Your task to perform on an android device: Search for razer thresher on newegg.com, select the first entry, add it to the cart, then select checkout. Image 0: 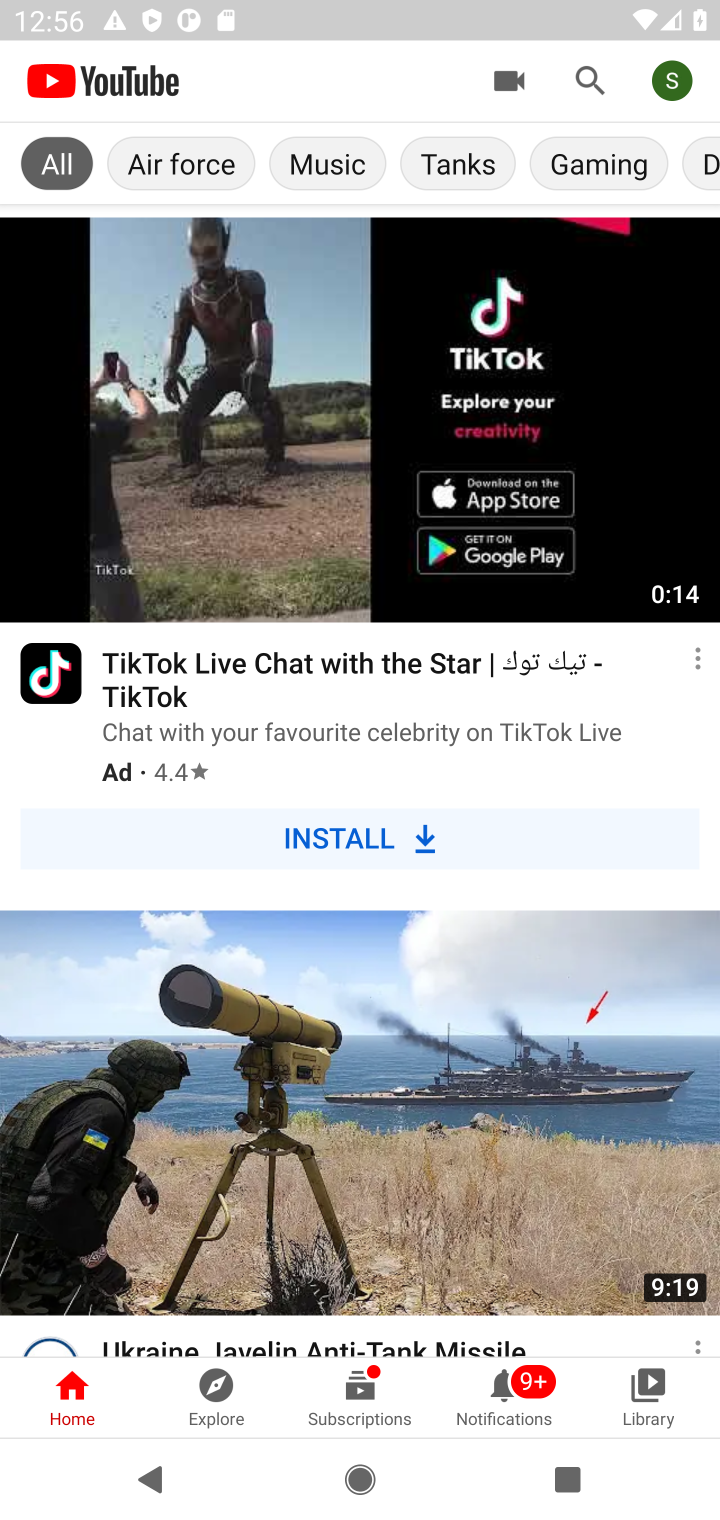
Step 0: press home button
Your task to perform on an android device: Search for razer thresher on newegg.com, select the first entry, add it to the cart, then select checkout. Image 1: 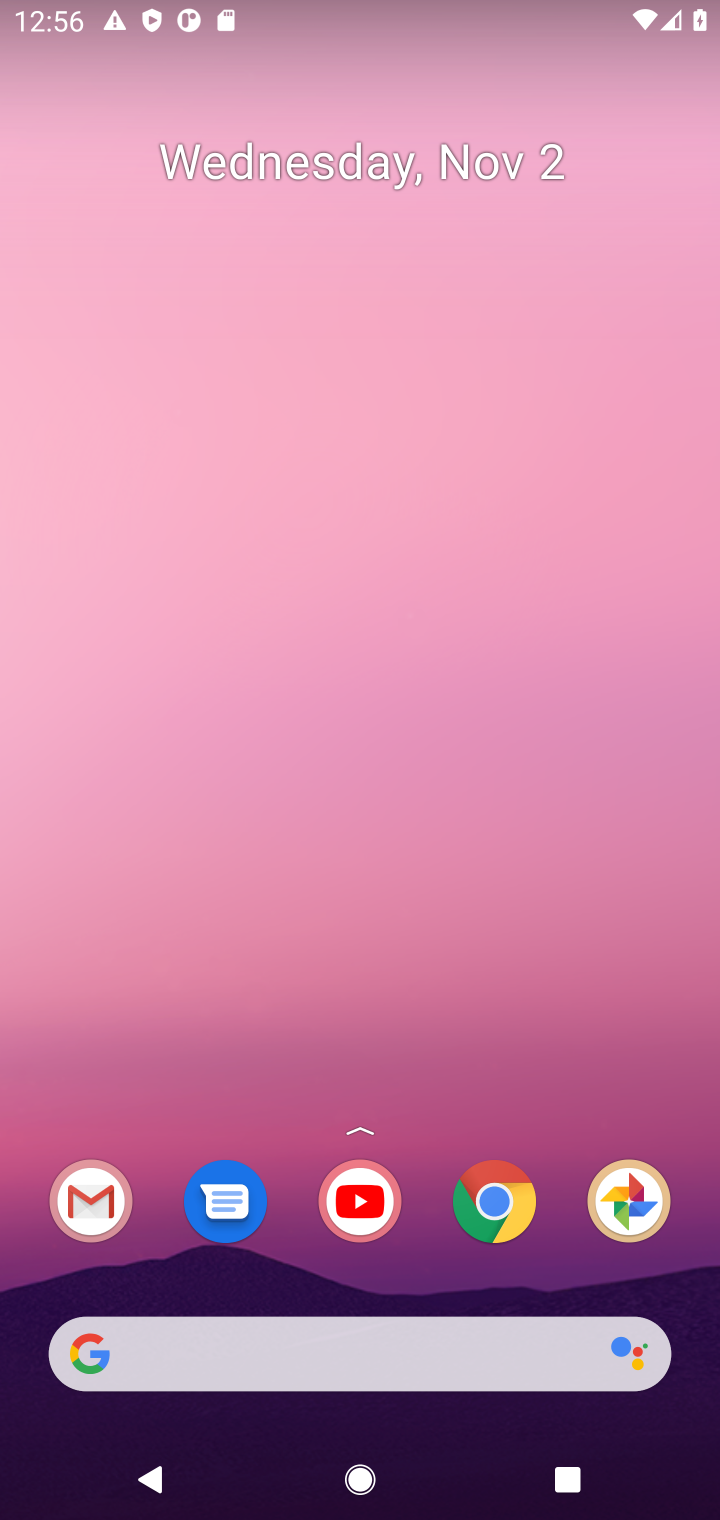
Step 1: drag from (300, 1159) to (442, 243)
Your task to perform on an android device: Search for razer thresher on newegg.com, select the first entry, add it to the cart, then select checkout. Image 2: 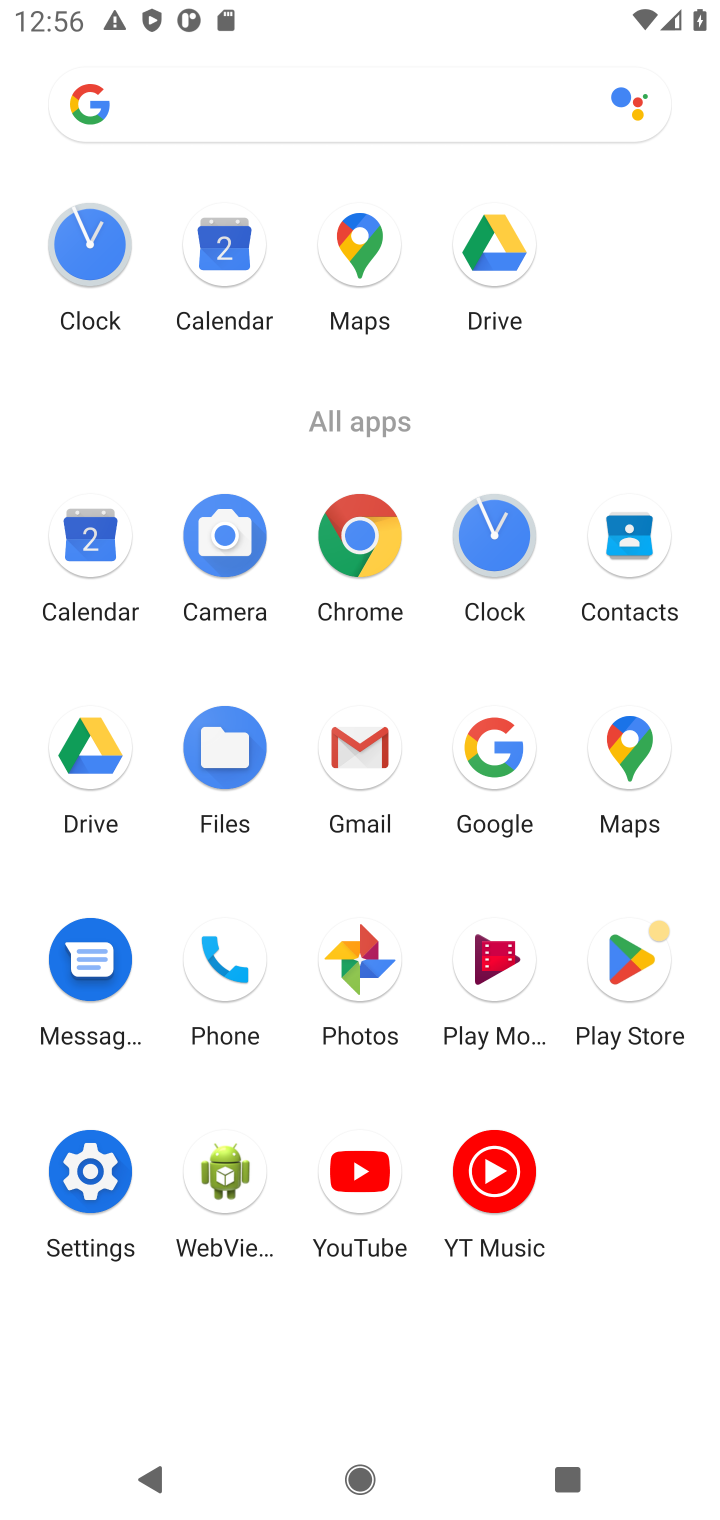
Step 2: click (514, 761)
Your task to perform on an android device: Search for razer thresher on newegg.com, select the first entry, add it to the cart, then select checkout. Image 3: 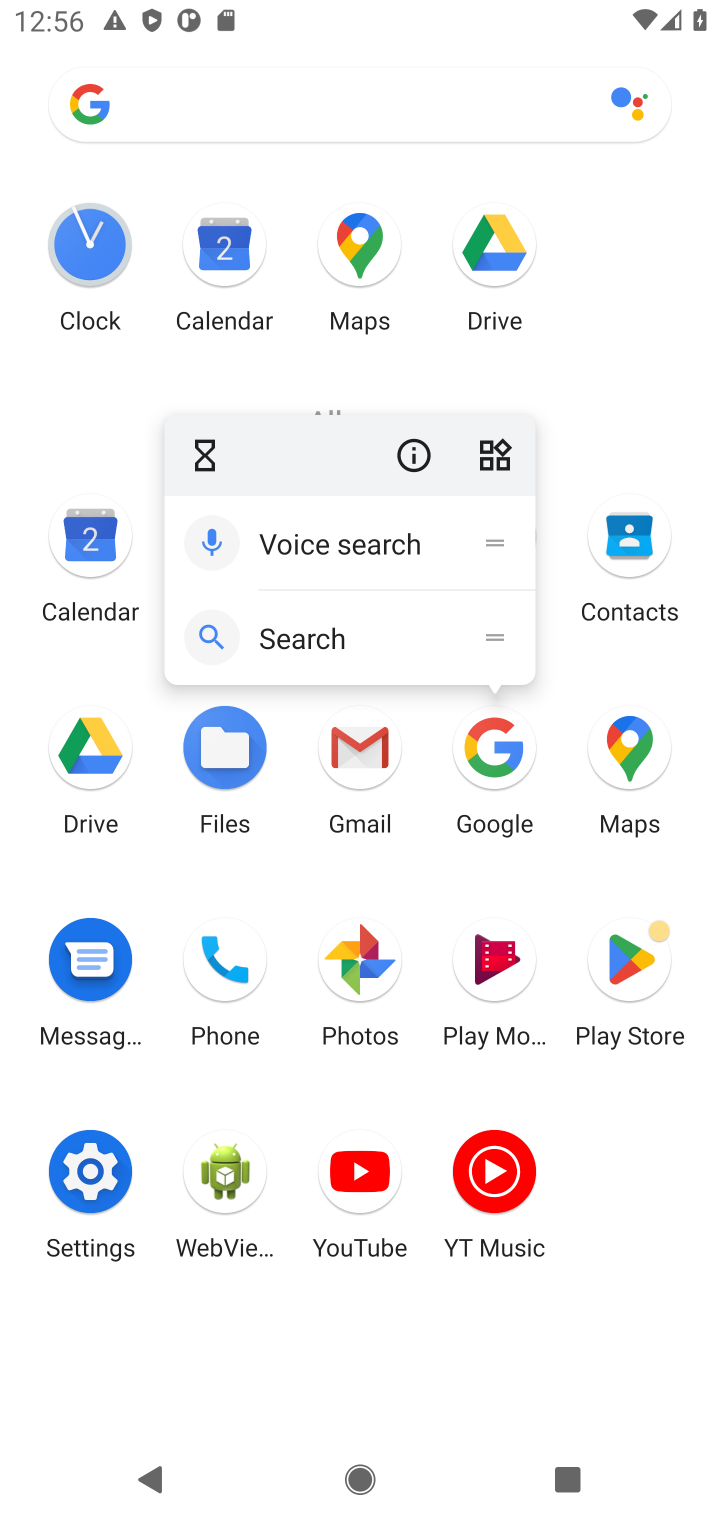
Step 3: click (503, 753)
Your task to perform on an android device: Search for razer thresher on newegg.com, select the first entry, add it to the cart, then select checkout. Image 4: 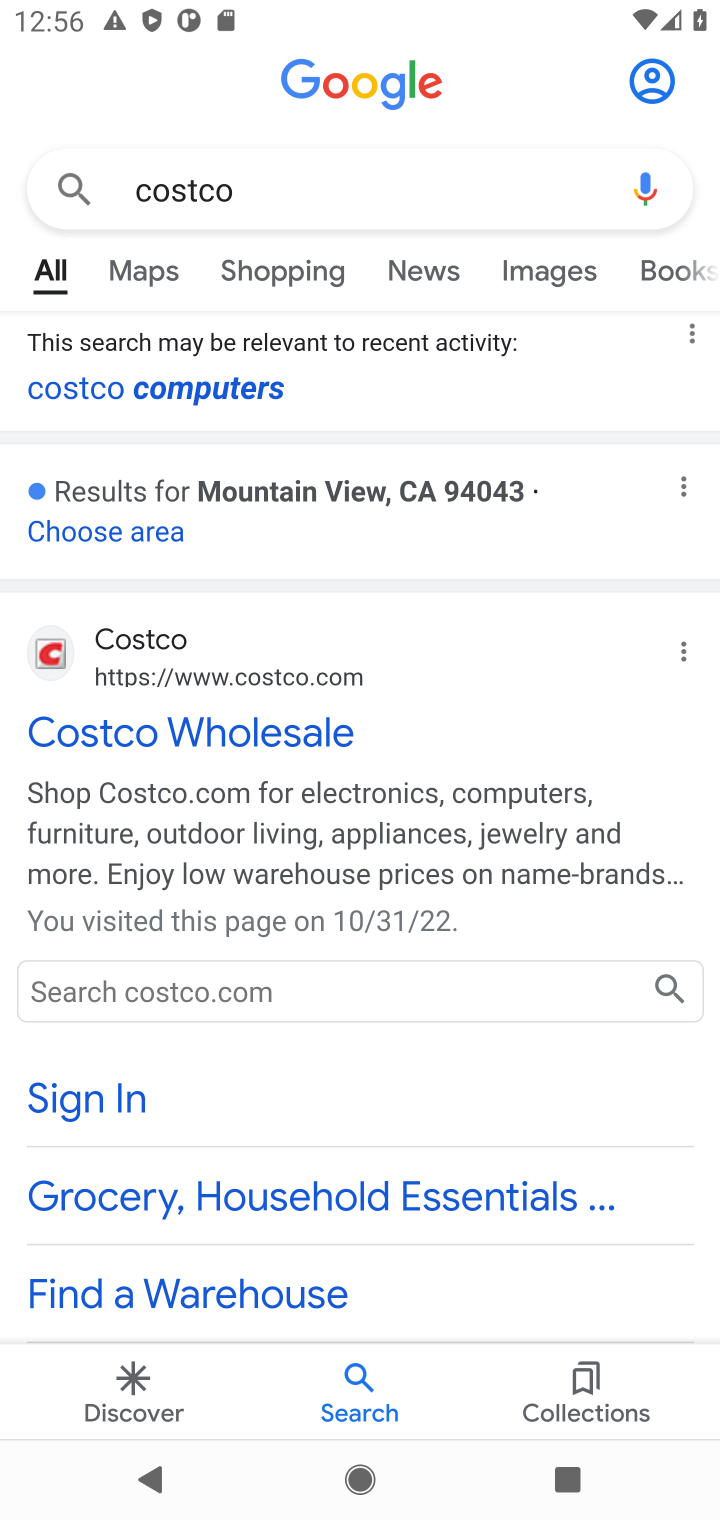
Step 4: click (267, 177)
Your task to perform on an android device: Search for razer thresher on newegg.com, select the first entry, add it to the cart, then select checkout. Image 5: 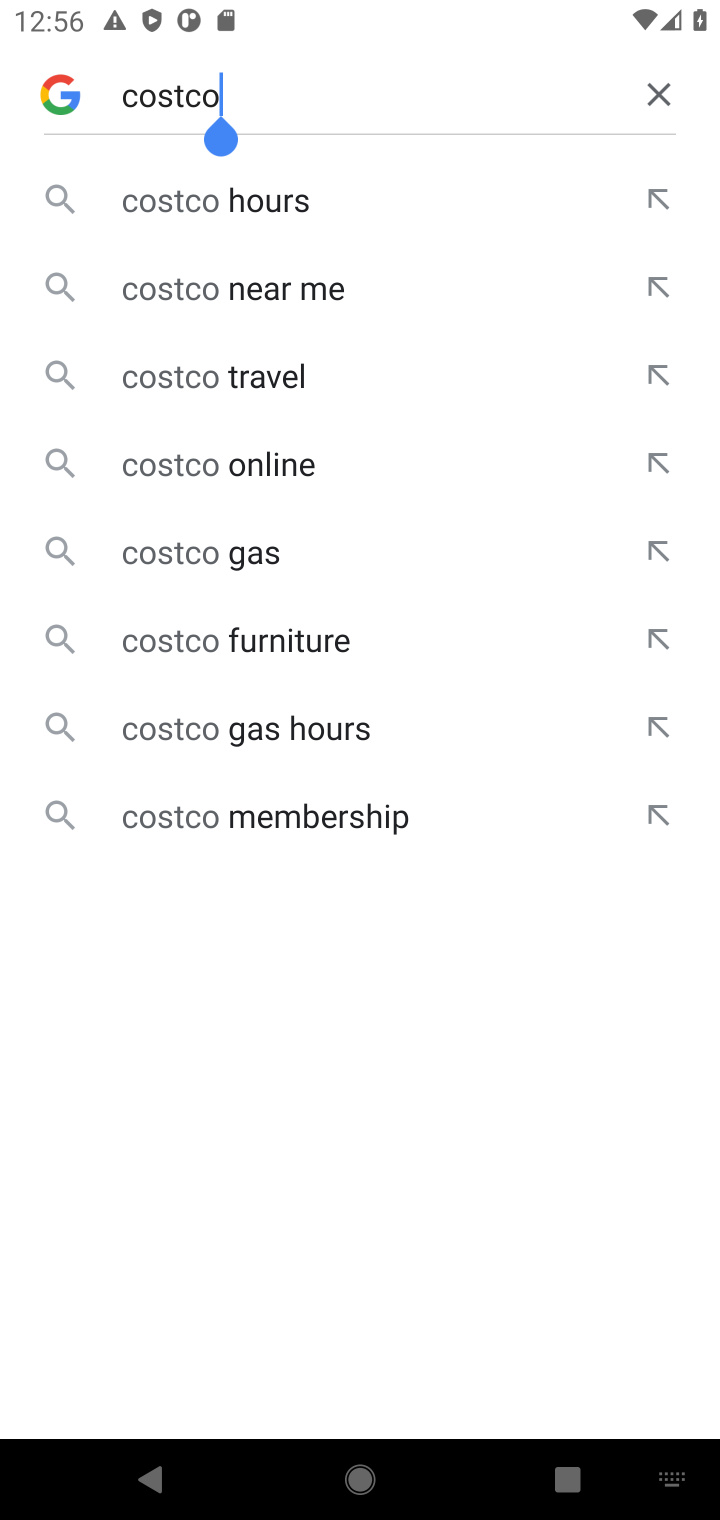
Step 5: click (661, 99)
Your task to perform on an android device: Search for razer thresher on newegg.com, select the first entry, add it to the cart, then select checkout. Image 6: 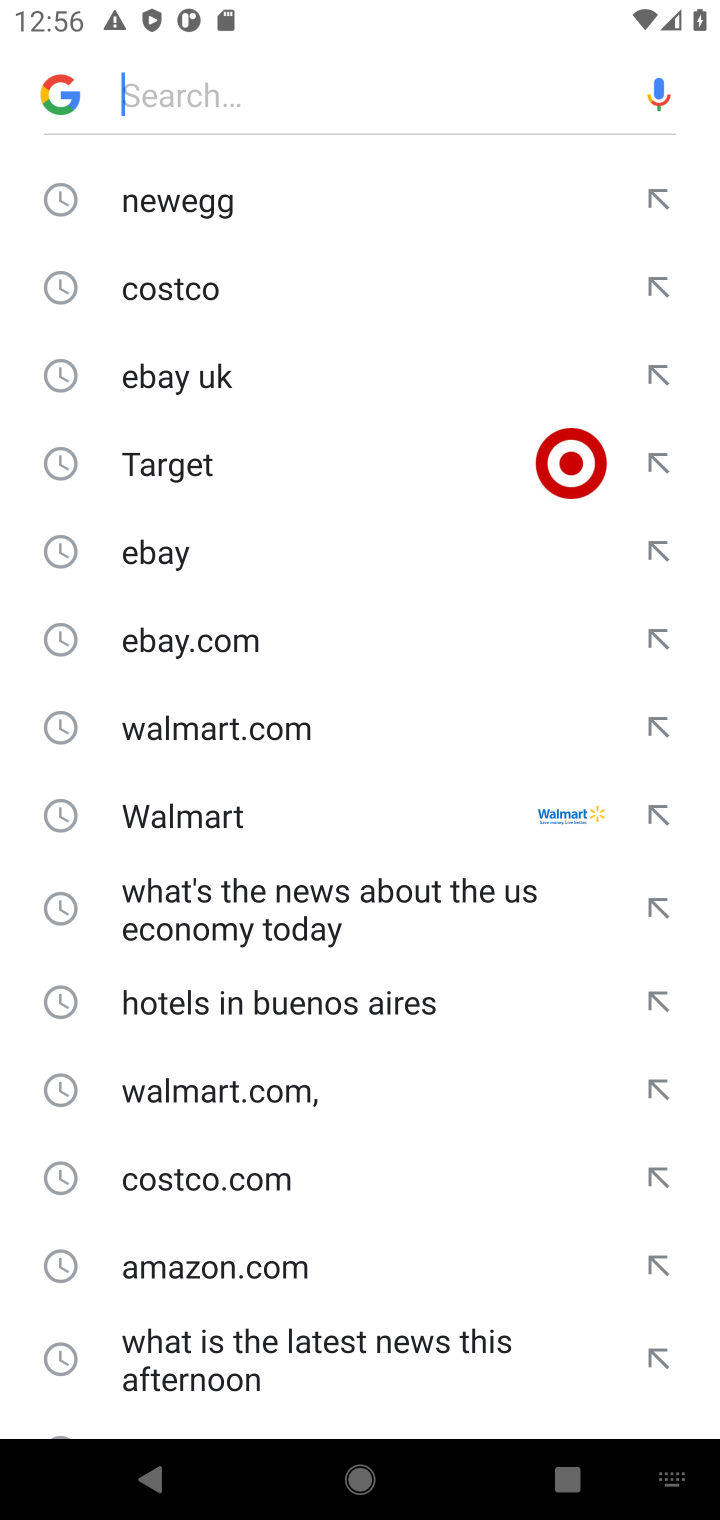
Step 6: click (173, 201)
Your task to perform on an android device: Search for razer thresher on newegg.com, select the first entry, add it to the cart, then select checkout. Image 7: 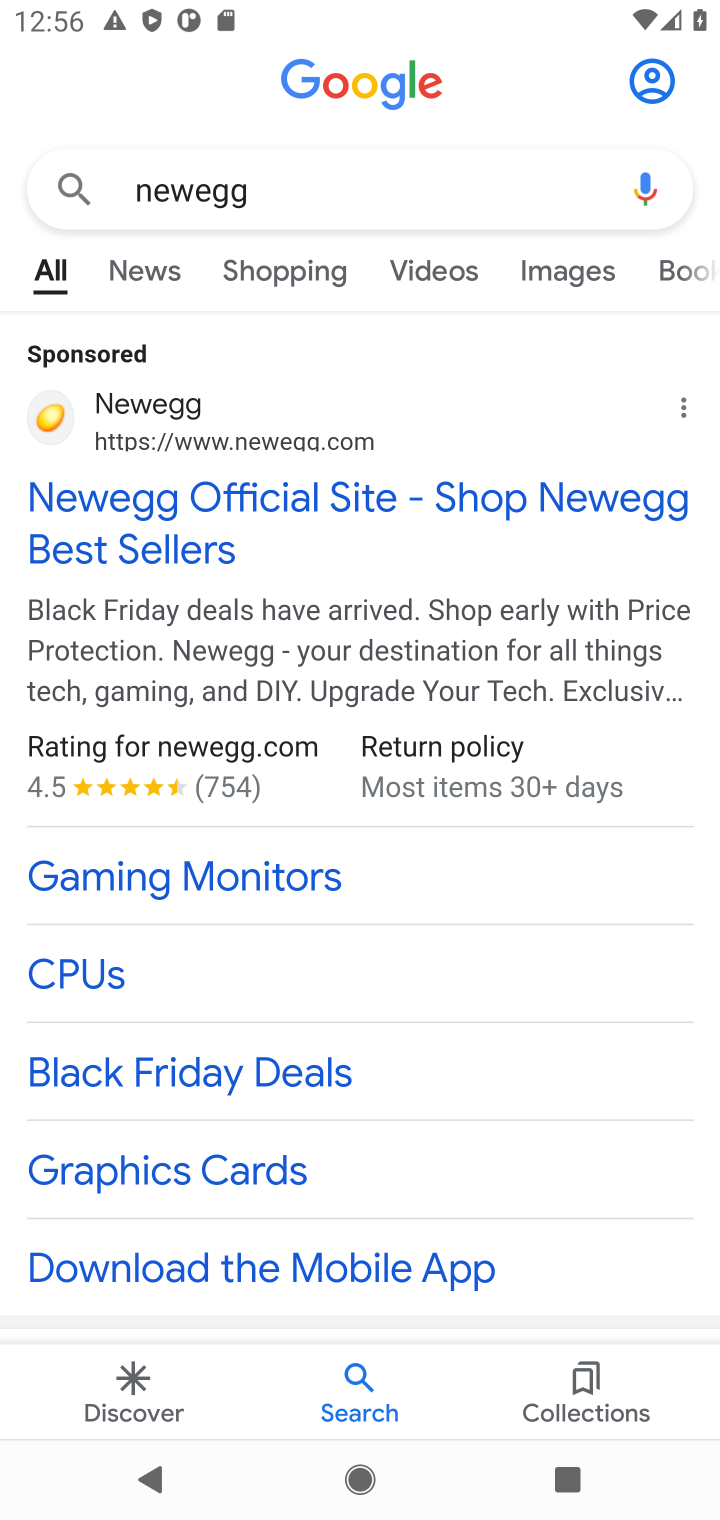
Step 7: click (254, 510)
Your task to perform on an android device: Search for razer thresher on newegg.com, select the first entry, add it to the cart, then select checkout. Image 8: 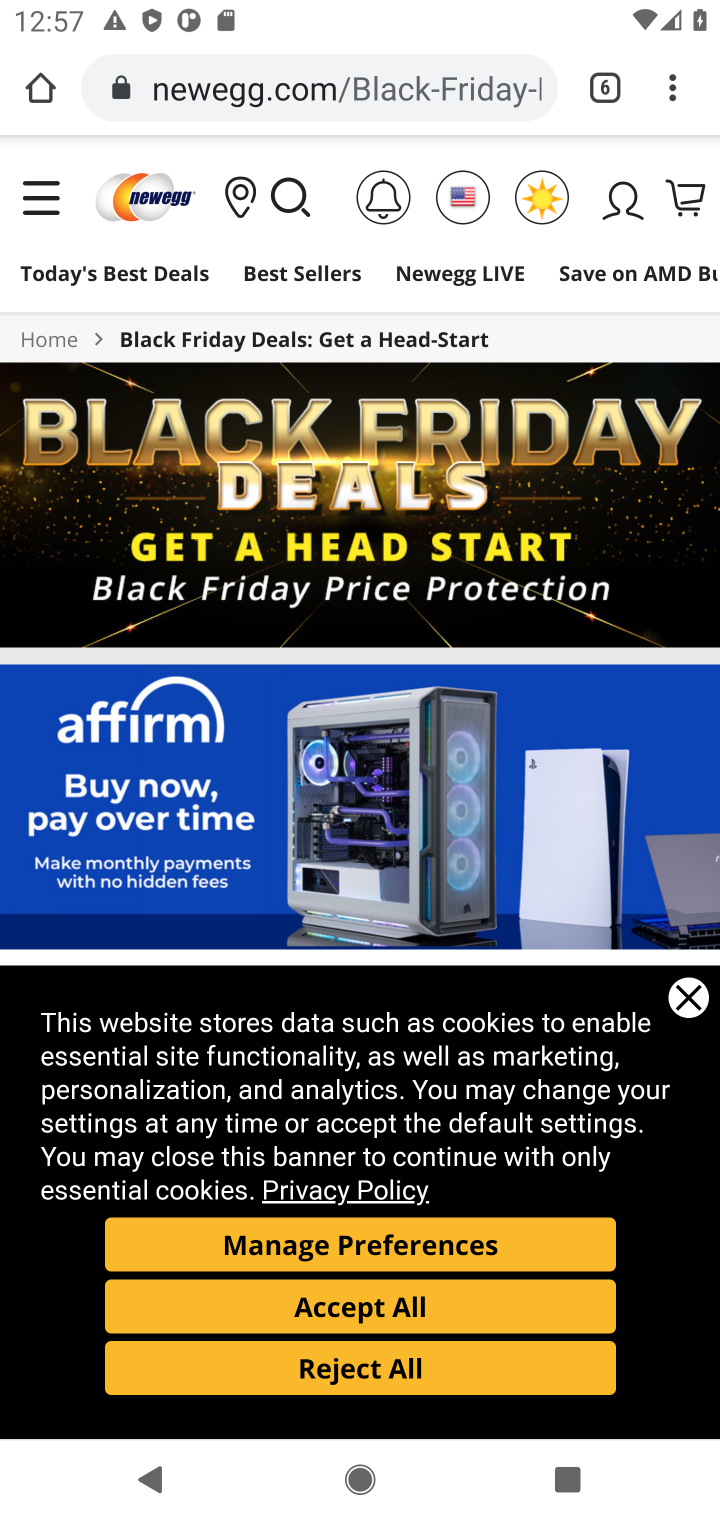
Step 8: click (289, 190)
Your task to perform on an android device: Search for razer thresher on newegg.com, select the first entry, add it to the cart, then select checkout. Image 9: 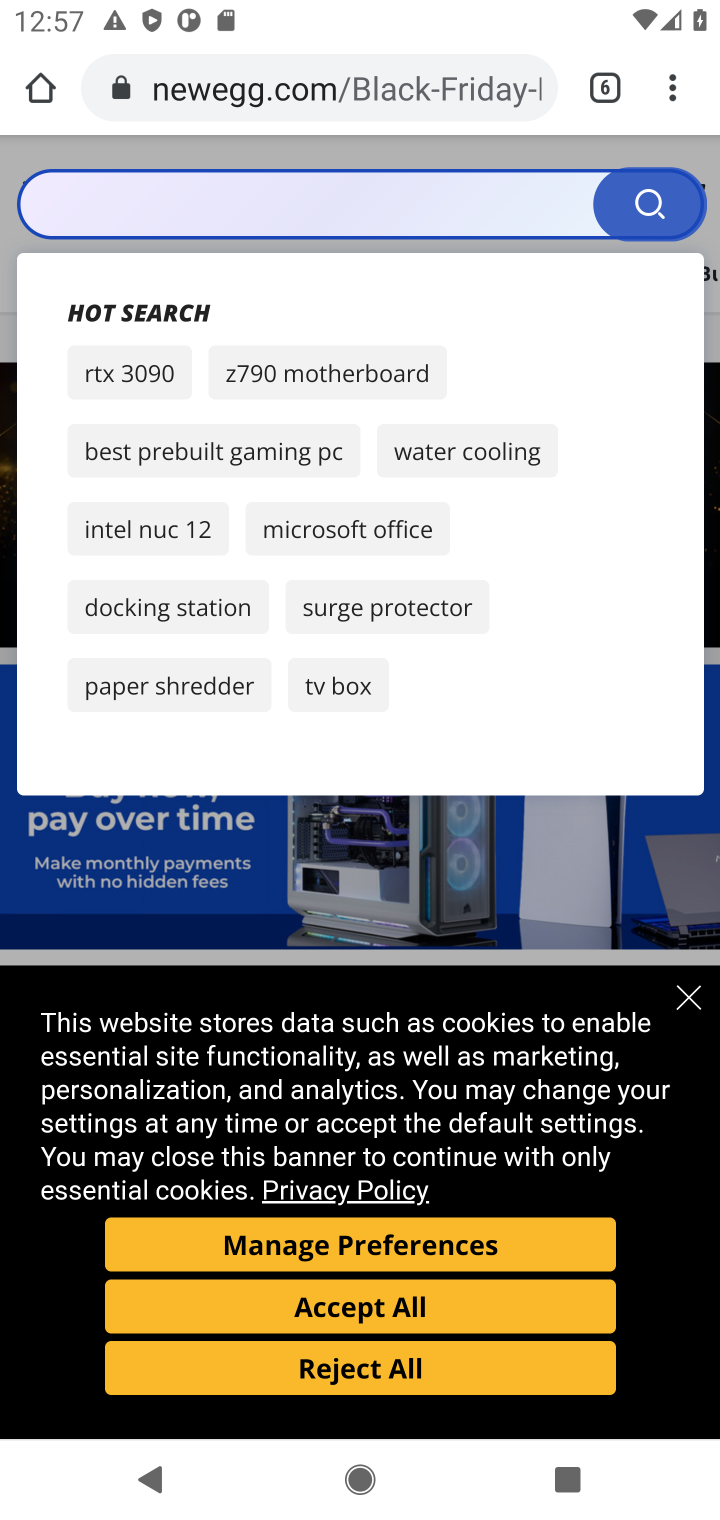
Step 9: click (68, 211)
Your task to perform on an android device: Search for razer thresher on newegg.com, select the first entry, add it to the cart, then select checkout. Image 10: 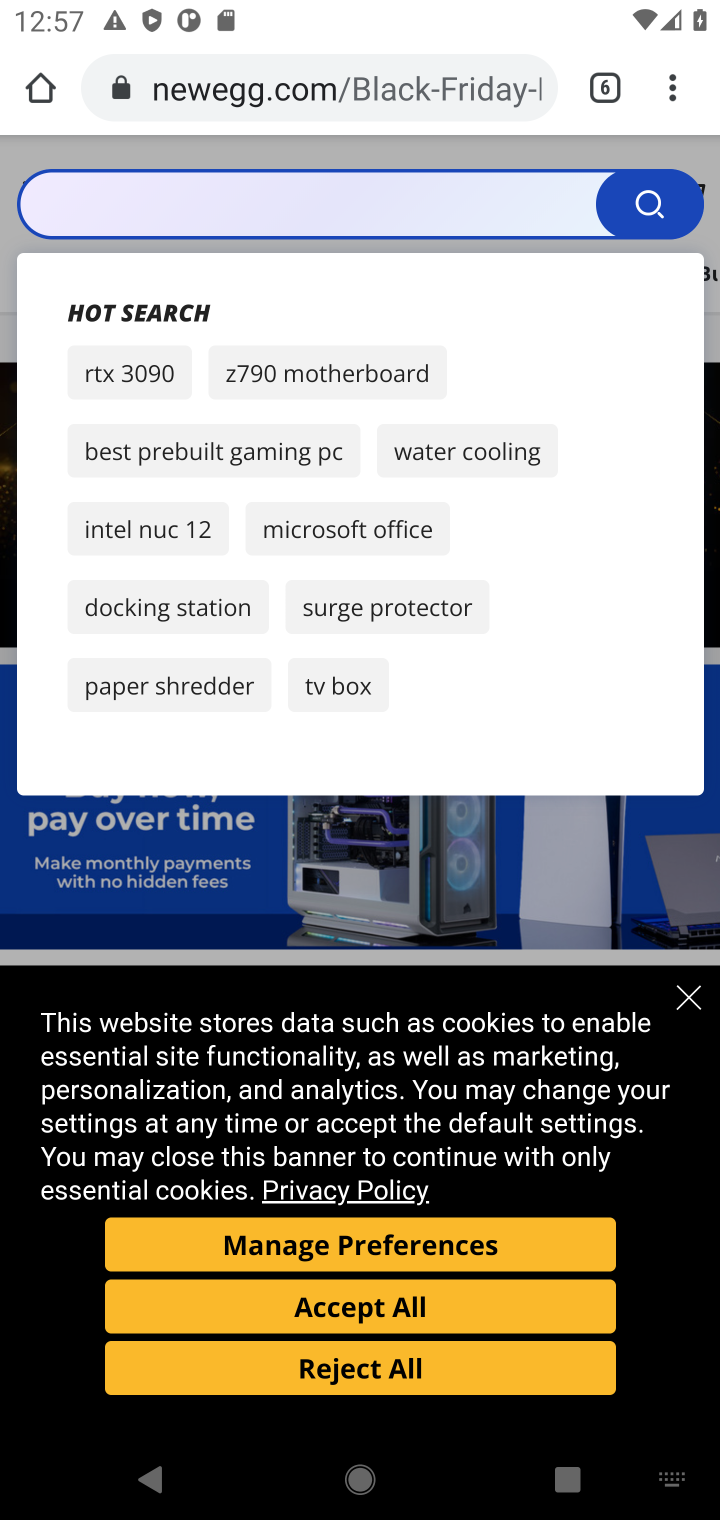
Step 10: type "razer thresher"
Your task to perform on an android device: Search for razer thresher on newegg.com, select the first entry, add it to the cart, then select checkout. Image 11: 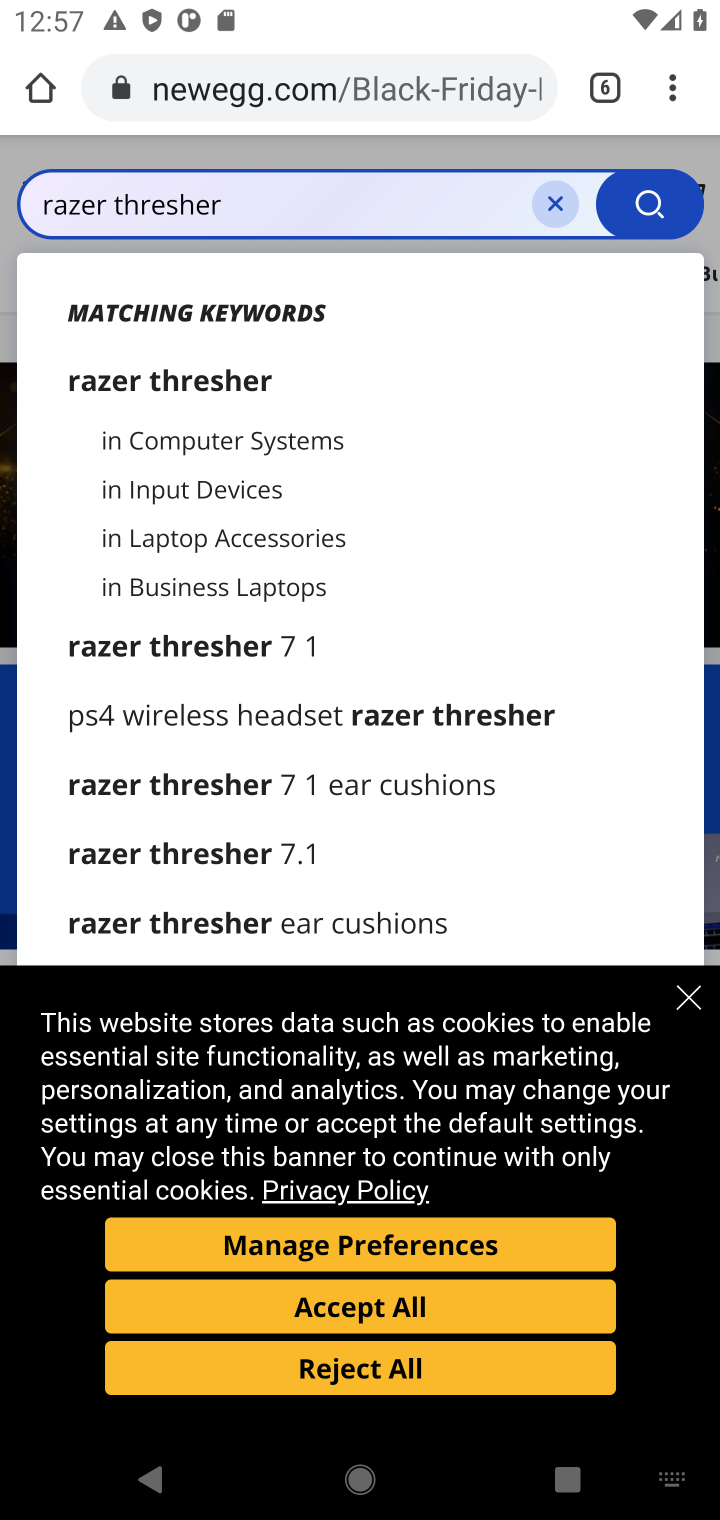
Step 11: click (139, 382)
Your task to perform on an android device: Search for razer thresher on newegg.com, select the first entry, add it to the cart, then select checkout. Image 12: 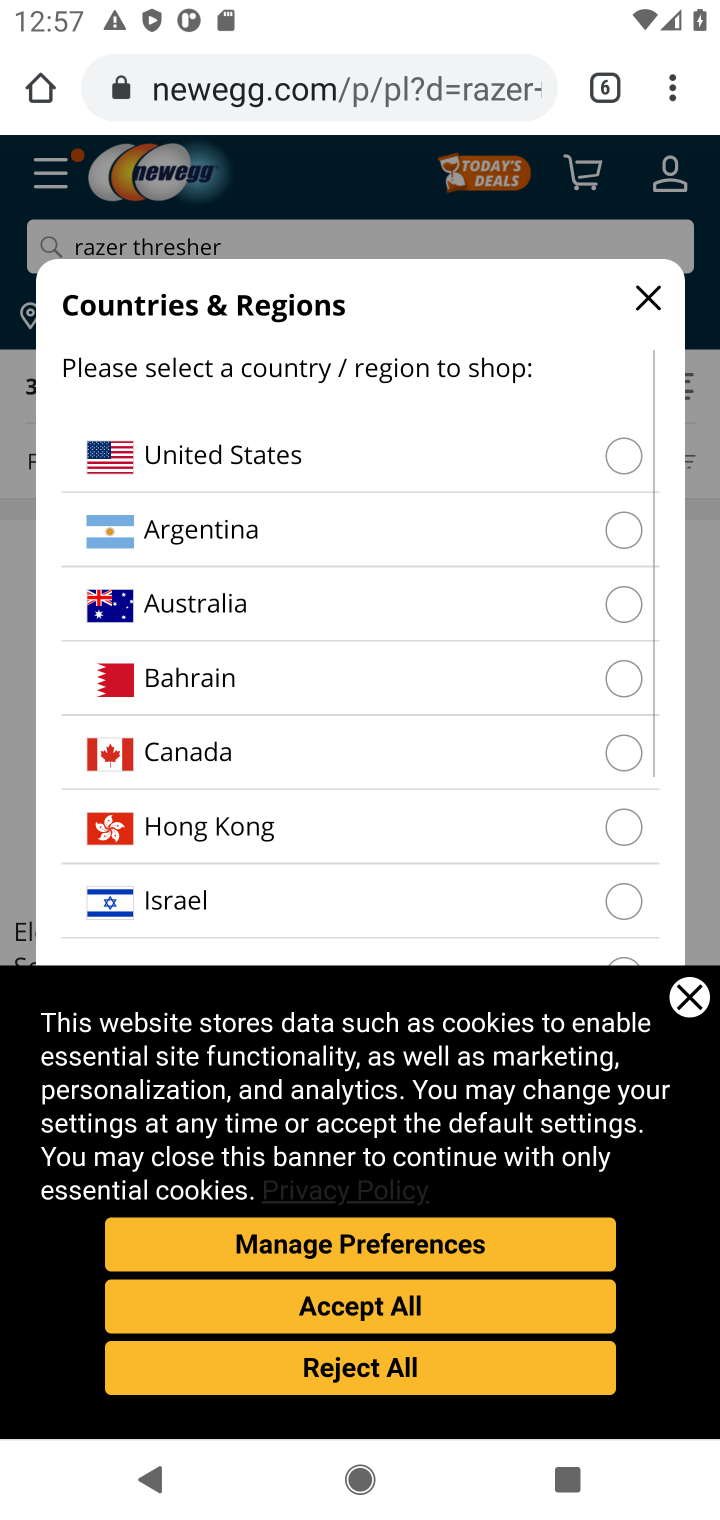
Step 12: click (639, 297)
Your task to perform on an android device: Search for razer thresher on newegg.com, select the first entry, add it to the cart, then select checkout. Image 13: 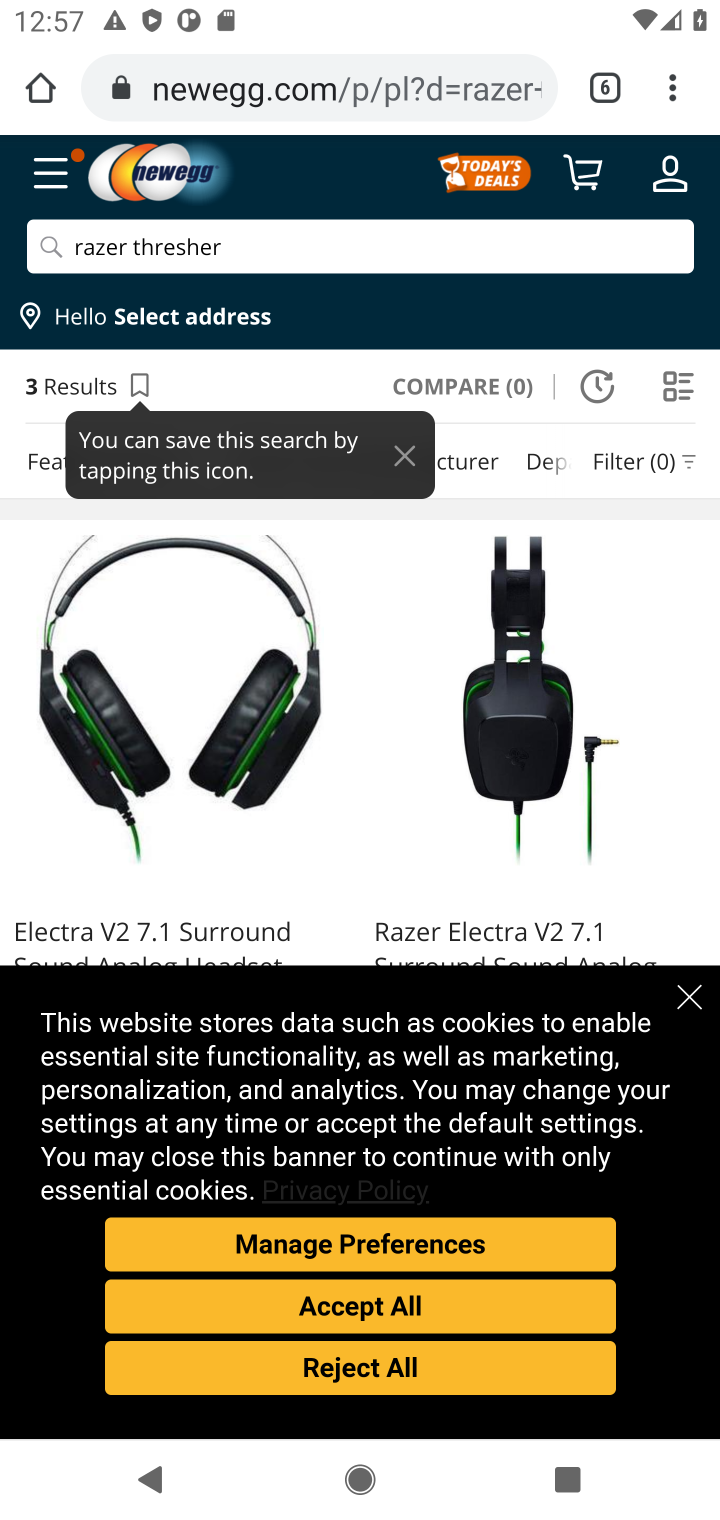
Step 13: click (212, 724)
Your task to perform on an android device: Search for razer thresher on newegg.com, select the first entry, add it to the cart, then select checkout. Image 14: 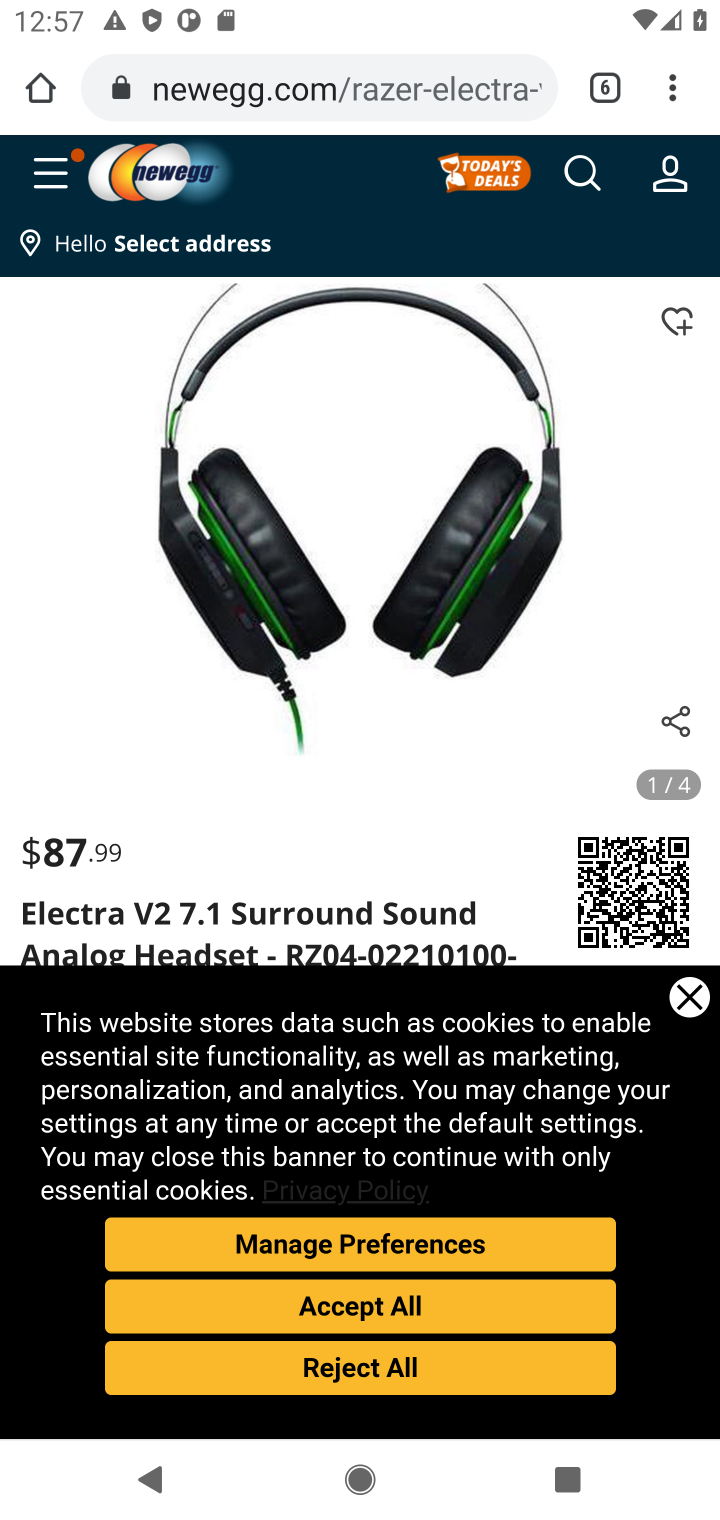
Step 14: click (696, 995)
Your task to perform on an android device: Search for razer thresher on newegg.com, select the first entry, add it to the cart, then select checkout. Image 15: 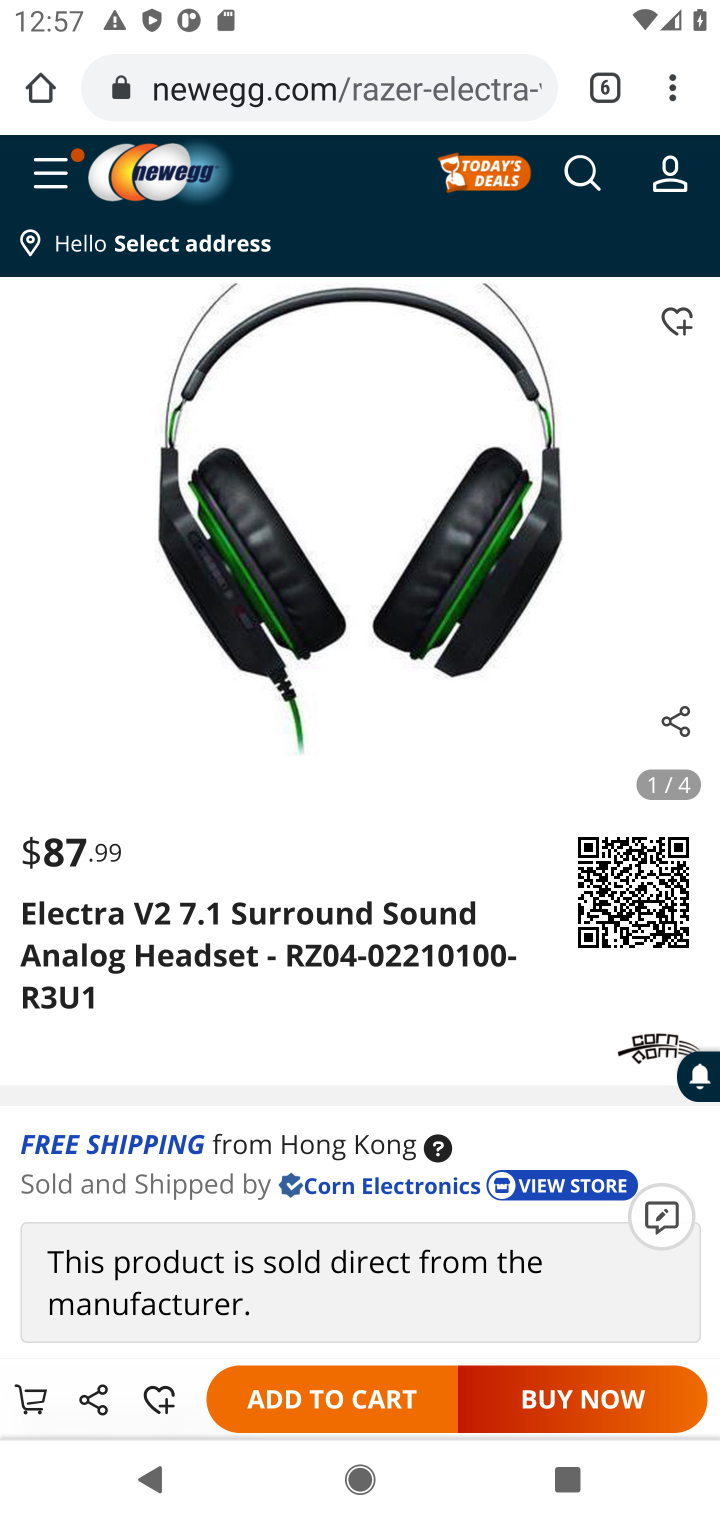
Step 15: task complete